Your task to perform on an android device: Do I have any events this weekend? Image 0: 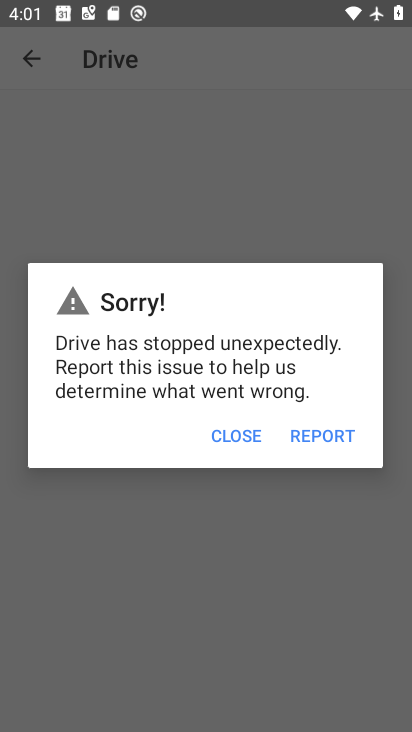
Step 0: press home button
Your task to perform on an android device: Do I have any events this weekend? Image 1: 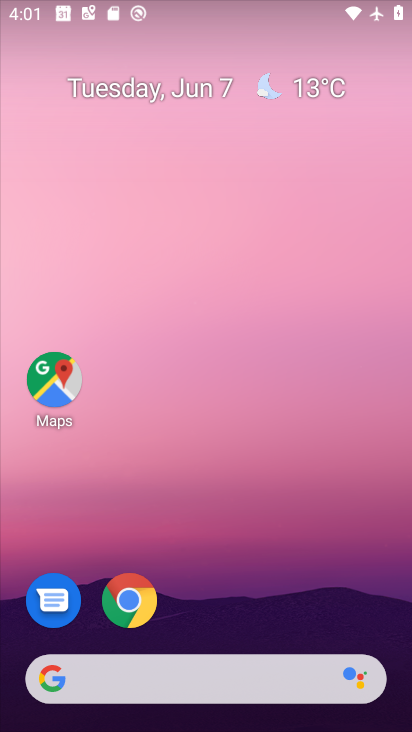
Step 1: drag from (319, 614) to (248, 218)
Your task to perform on an android device: Do I have any events this weekend? Image 2: 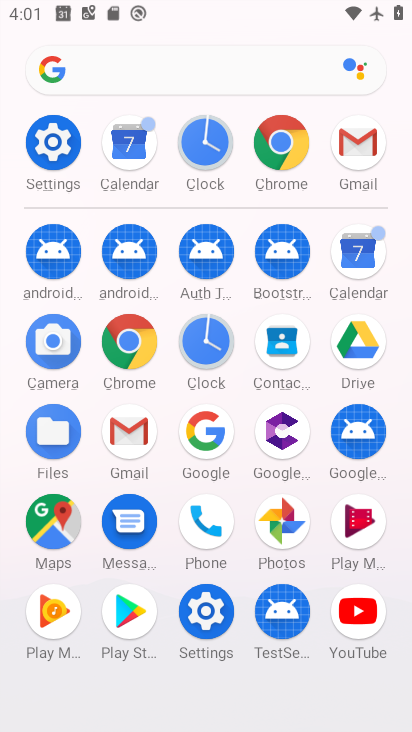
Step 2: click (214, 151)
Your task to perform on an android device: Do I have any events this weekend? Image 3: 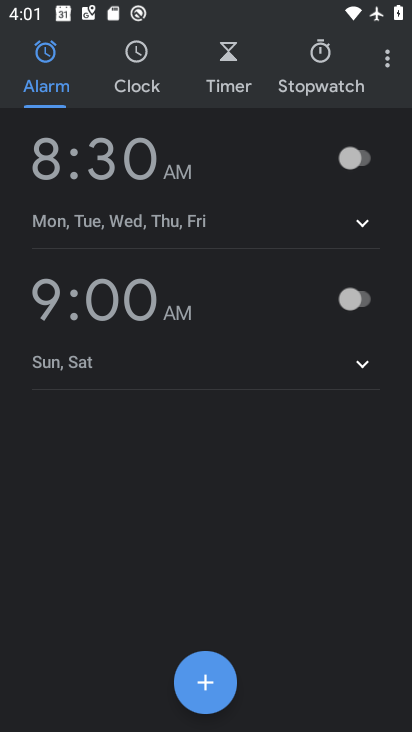
Step 3: press home button
Your task to perform on an android device: Do I have any events this weekend? Image 4: 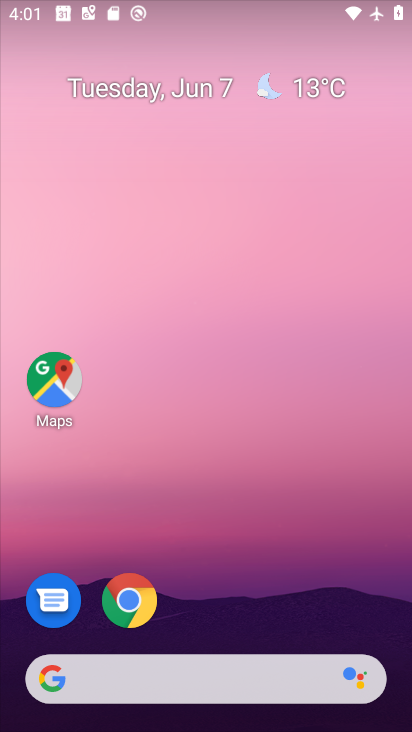
Step 4: drag from (265, 599) to (297, 181)
Your task to perform on an android device: Do I have any events this weekend? Image 5: 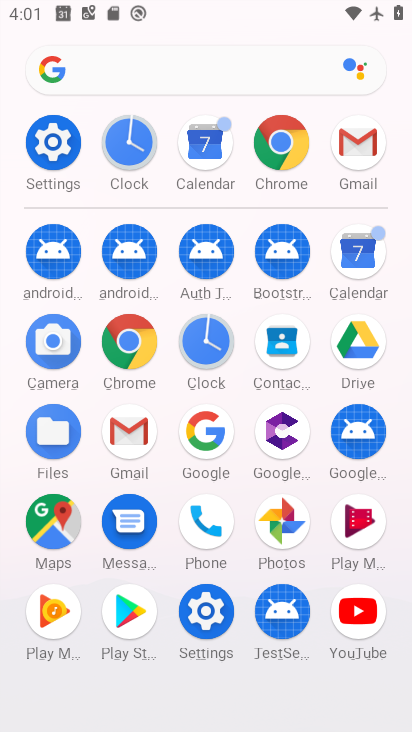
Step 5: click (376, 257)
Your task to perform on an android device: Do I have any events this weekend? Image 6: 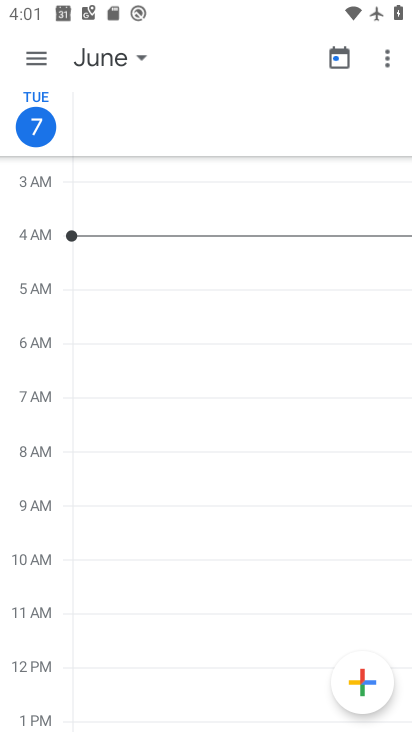
Step 6: click (59, 56)
Your task to perform on an android device: Do I have any events this weekend? Image 7: 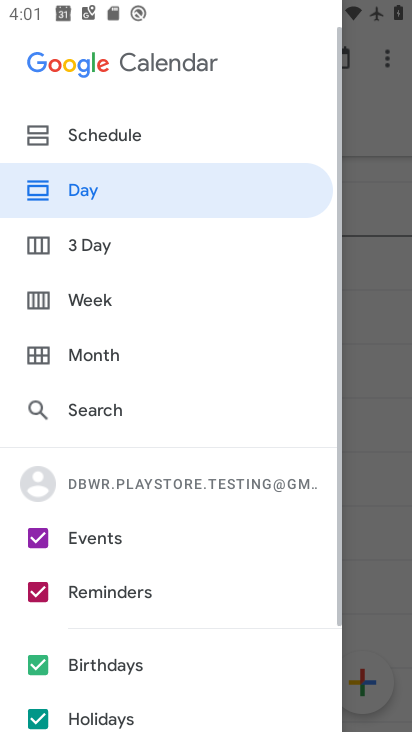
Step 7: click (104, 287)
Your task to perform on an android device: Do I have any events this weekend? Image 8: 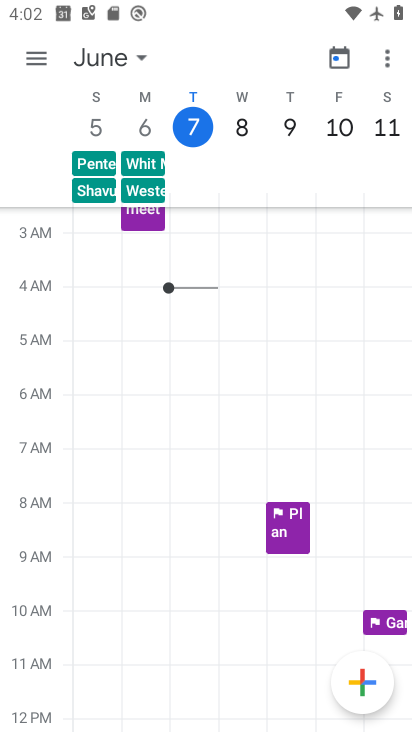
Step 8: task complete